Your task to perform on an android device: Open CNN.com Image 0: 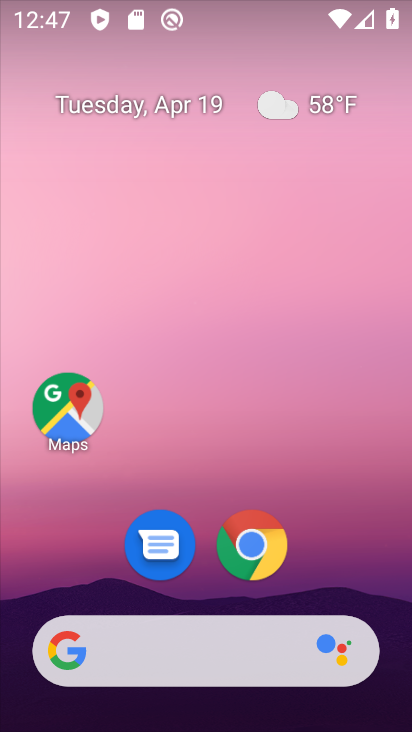
Step 0: click (244, 545)
Your task to perform on an android device: Open CNN.com Image 1: 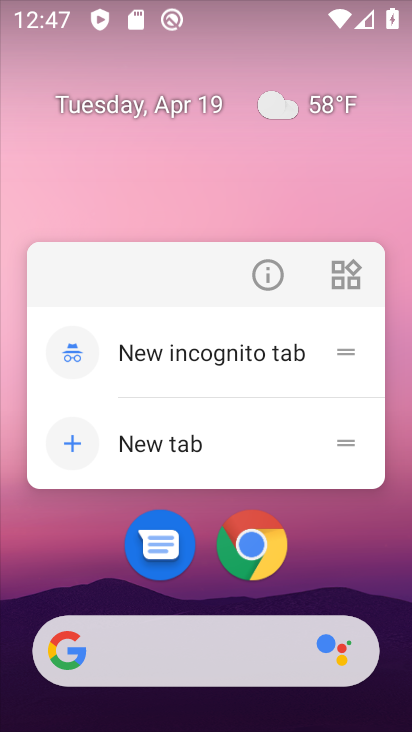
Step 1: click (255, 539)
Your task to perform on an android device: Open CNN.com Image 2: 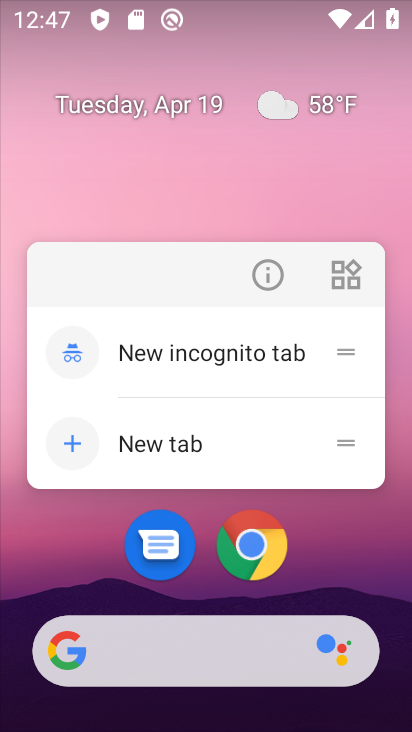
Step 2: click (245, 544)
Your task to perform on an android device: Open CNN.com Image 3: 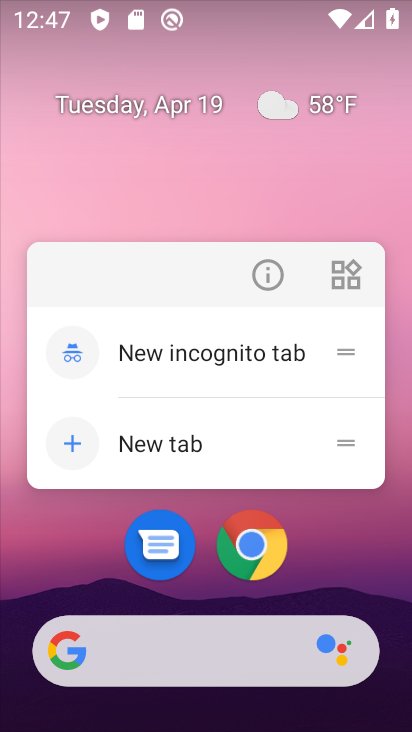
Step 3: click (252, 569)
Your task to perform on an android device: Open CNN.com Image 4: 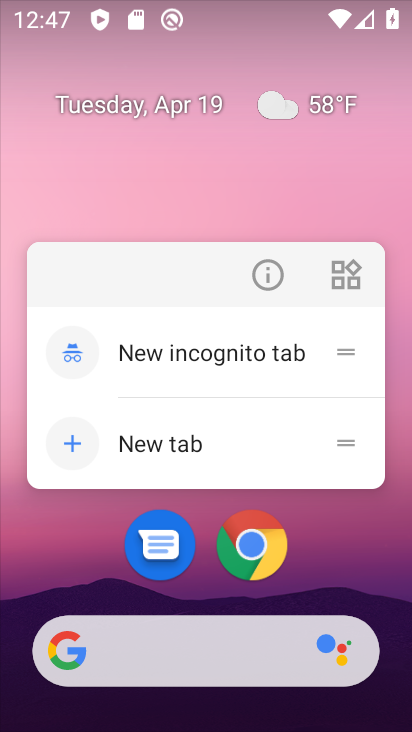
Step 4: click (252, 528)
Your task to perform on an android device: Open CNN.com Image 5: 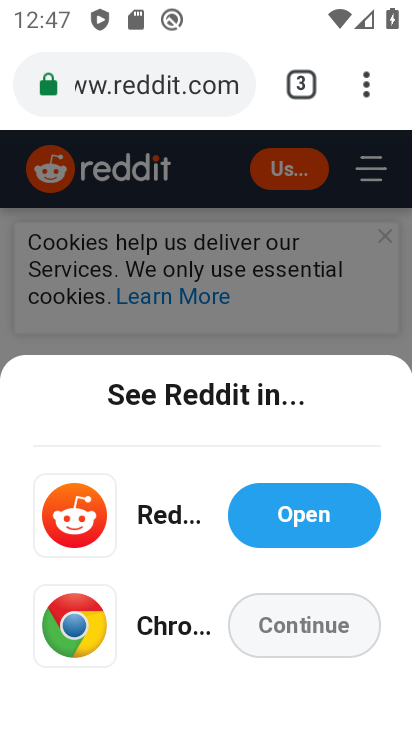
Step 5: click (199, 320)
Your task to perform on an android device: Open CNN.com Image 6: 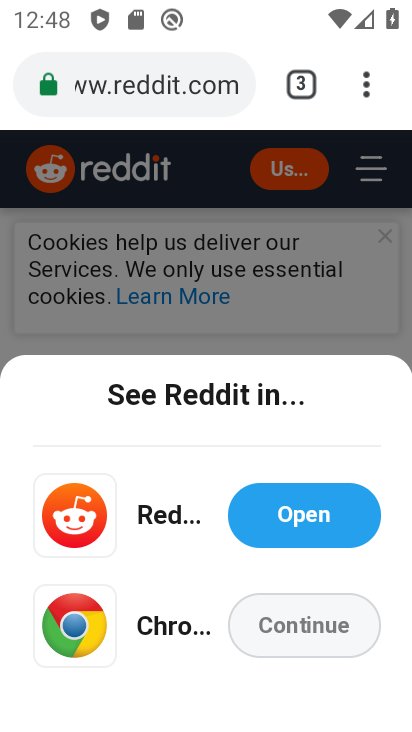
Step 6: click (232, 291)
Your task to perform on an android device: Open CNN.com Image 7: 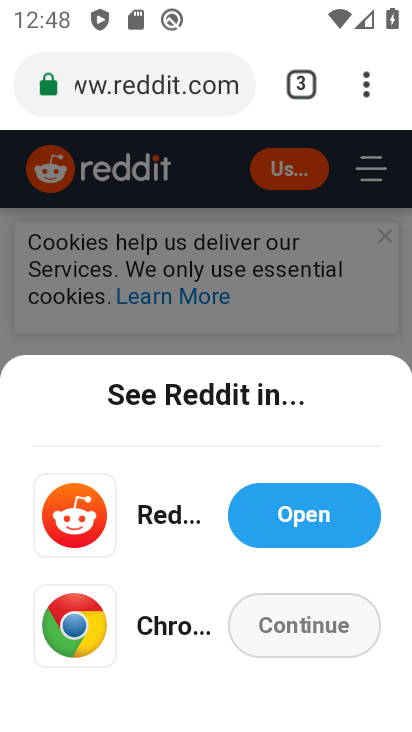
Step 7: click (315, 78)
Your task to perform on an android device: Open CNN.com Image 8: 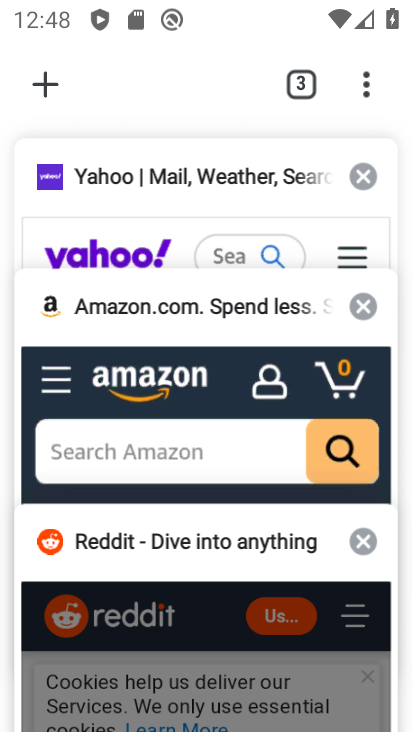
Step 8: click (43, 75)
Your task to perform on an android device: Open CNN.com Image 9: 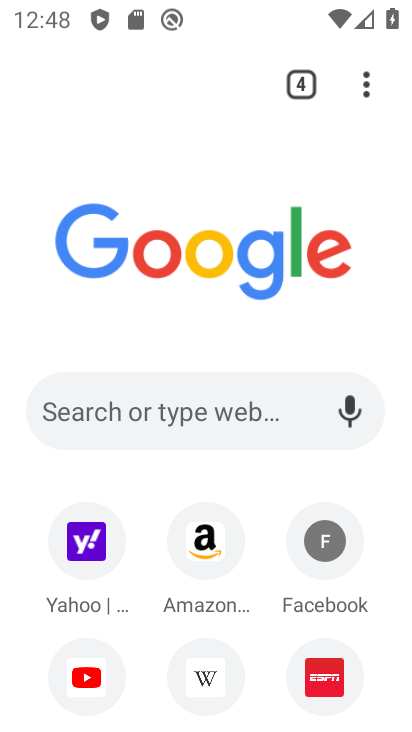
Step 9: click (156, 409)
Your task to perform on an android device: Open CNN.com Image 10: 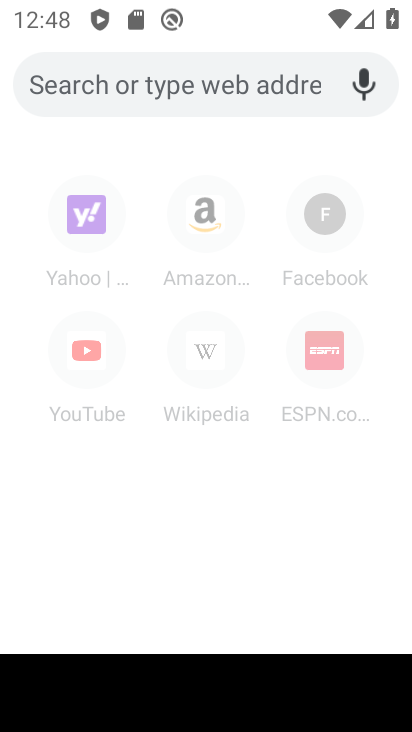
Step 10: type "cnn.com"
Your task to perform on an android device: Open CNN.com Image 11: 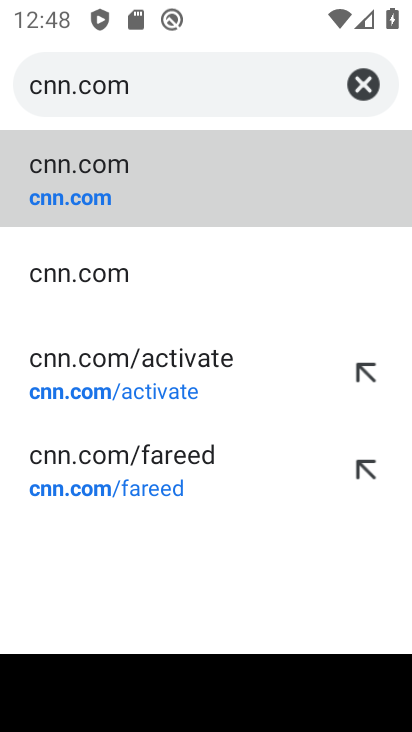
Step 11: click (163, 175)
Your task to perform on an android device: Open CNN.com Image 12: 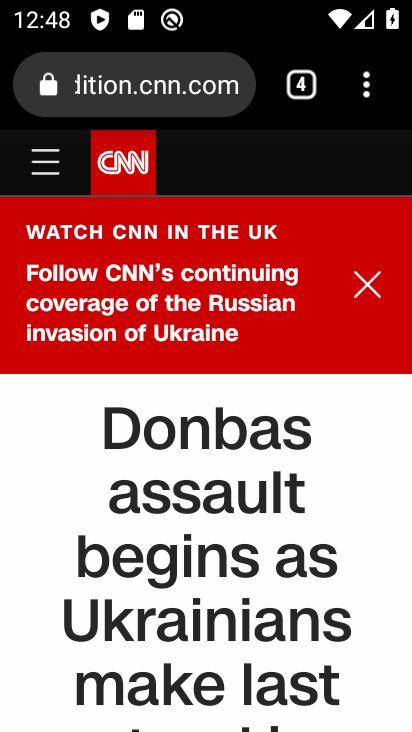
Step 12: task complete